Your task to perform on an android device: Go to Reddit.com Image 0: 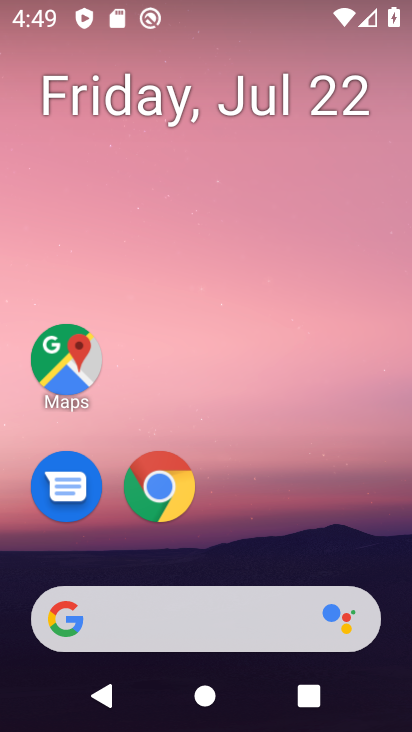
Step 0: drag from (374, 567) to (377, 59)
Your task to perform on an android device: Go to Reddit.com Image 1: 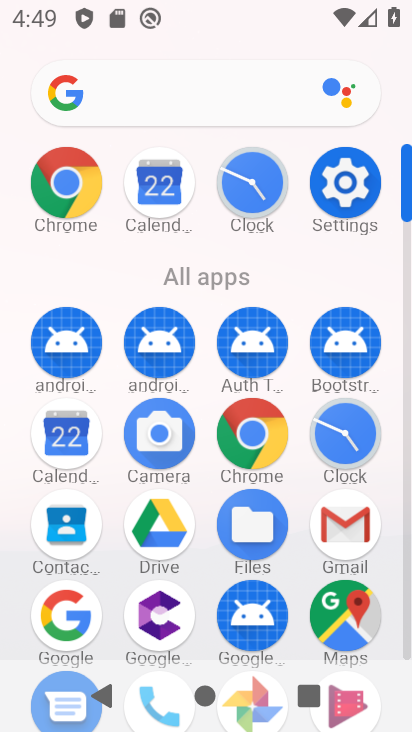
Step 1: click (77, 184)
Your task to perform on an android device: Go to Reddit.com Image 2: 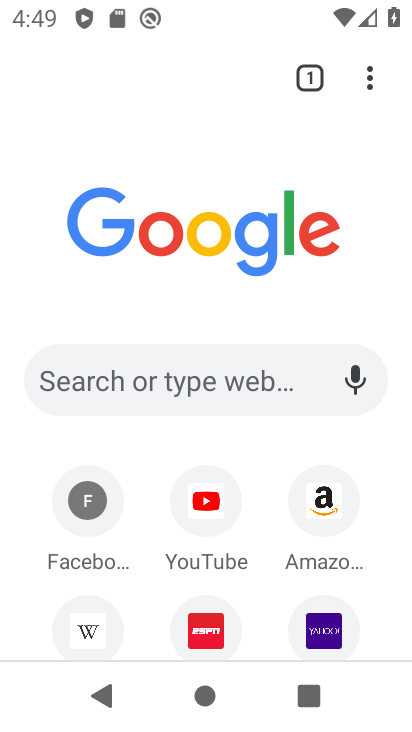
Step 2: click (206, 366)
Your task to perform on an android device: Go to Reddit.com Image 3: 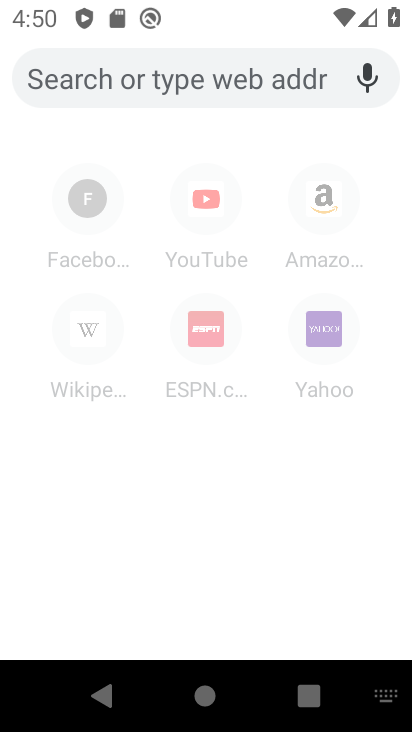
Step 3: click (184, 85)
Your task to perform on an android device: Go to Reddit.com Image 4: 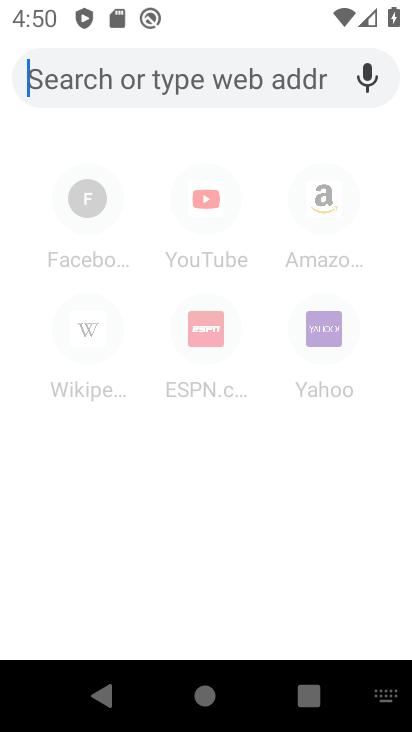
Step 4: type "Reddit.com"
Your task to perform on an android device: Go to Reddit.com Image 5: 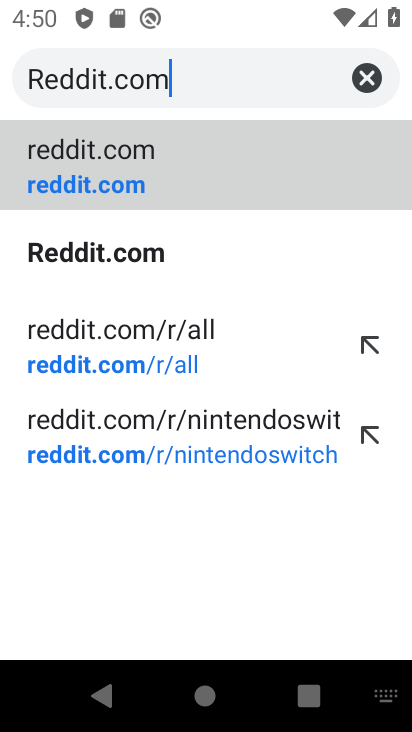
Step 5: click (167, 178)
Your task to perform on an android device: Go to Reddit.com Image 6: 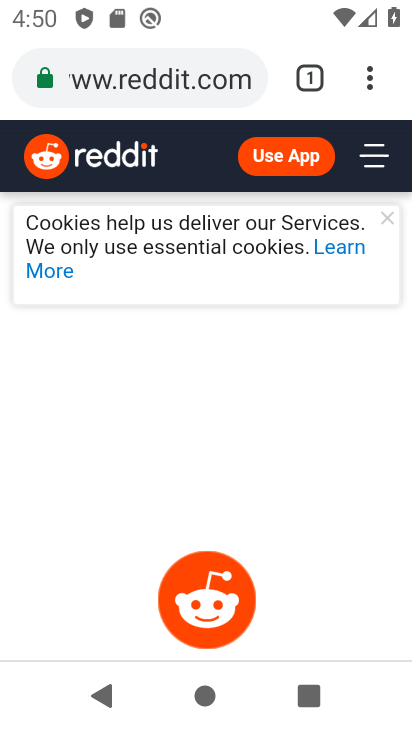
Step 6: task complete